Your task to perform on an android device: Open accessibility settings Image 0: 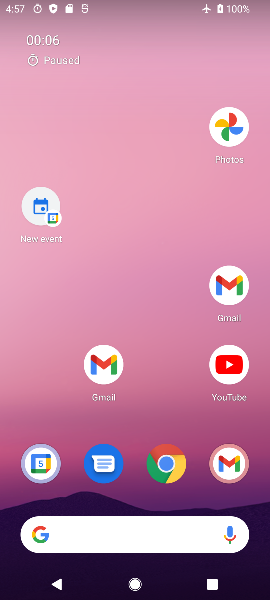
Step 0: drag from (151, 579) to (142, 192)
Your task to perform on an android device: Open accessibility settings Image 1: 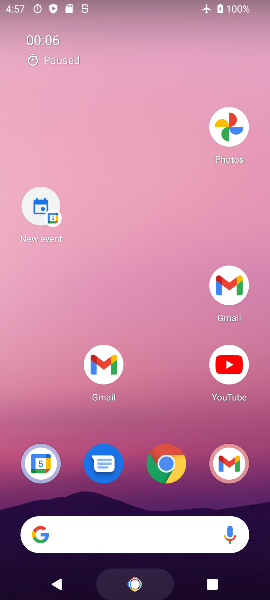
Step 1: drag from (173, 485) to (133, 208)
Your task to perform on an android device: Open accessibility settings Image 2: 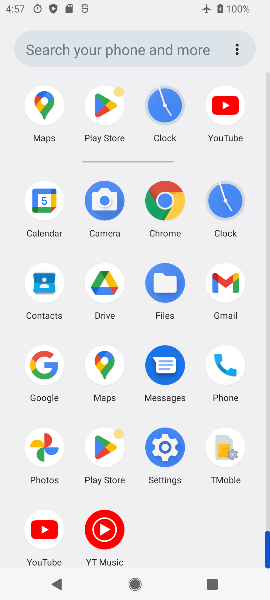
Step 2: click (164, 445)
Your task to perform on an android device: Open accessibility settings Image 3: 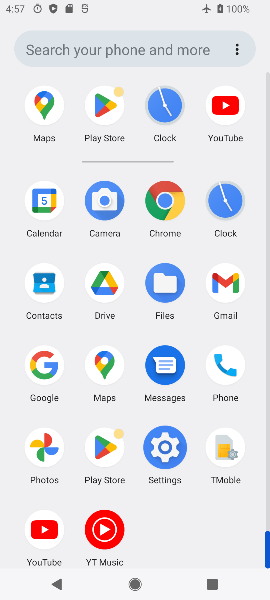
Step 3: click (164, 445)
Your task to perform on an android device: Open accessibility settings Image 4: 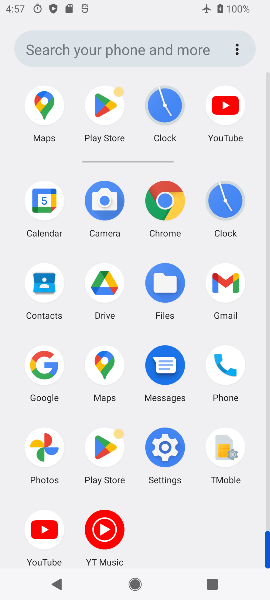
Step 4: click (164, 452)
Your task to perform on an android device: Open accessibility settings Image 5: 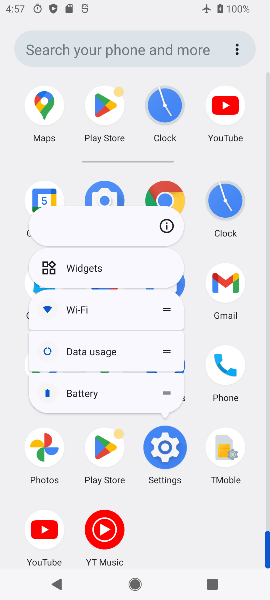
Step 5: click (165, 453)
Your task to perform on an android device: Open accessibility settings Image 6: 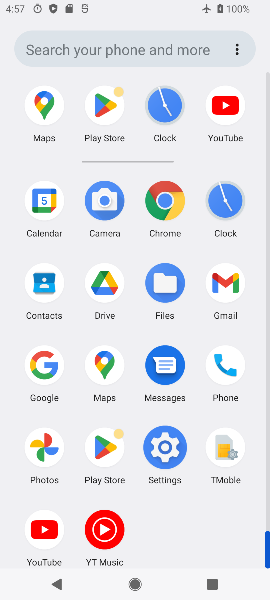
Step 6: click (165, 453)
Your task to perform on an android device: Open accessibility settings Image 7: 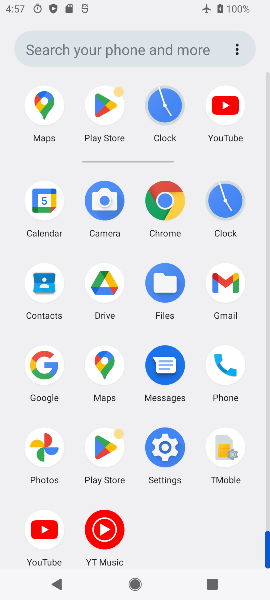
Step 7: click (167, 451)
Your task to perform on an android device: Open accessibility settings Image 8: 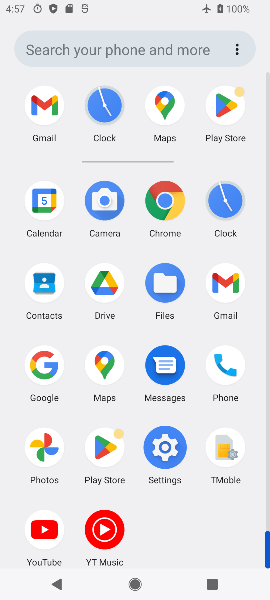
Step 8: click (169, 444)
Your task to perform on an android device: Open accessibility settings Image 9: 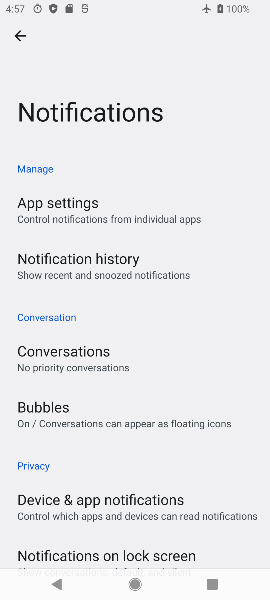
Step 9: click (25, 31)
Your task to perform on an android device: Open accessibility settings Image 10: 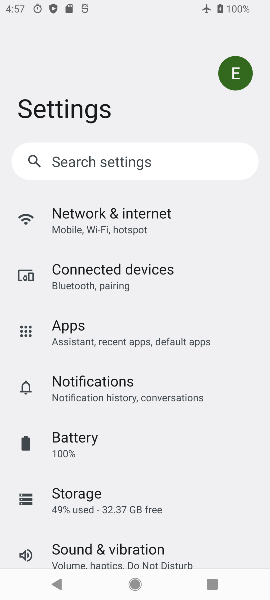
Step 10: drag from (151, 450) to (133, 188)
Your task to perform on an android device: Open accessibility settings Image 11: 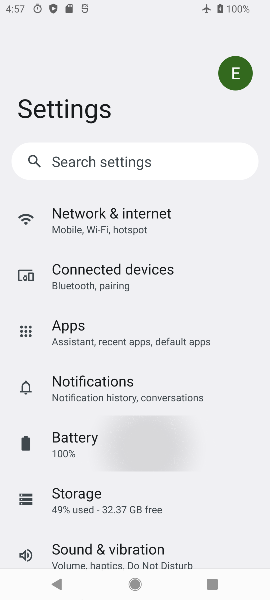
Step 11: drag from (134, 423) to (134, 208)
Your task to perform on an android device: Open accessibility settings Image 12: 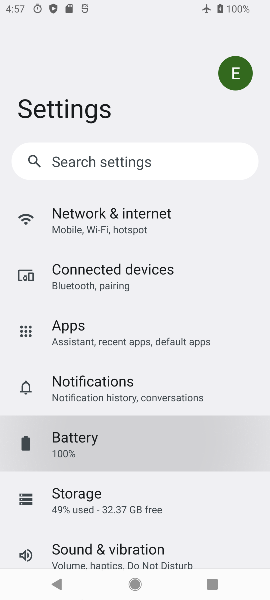
Step 12: drag from (138, 449) to (138, 273)
Your task to perform on an android device: Open accessibility settings Image 13: 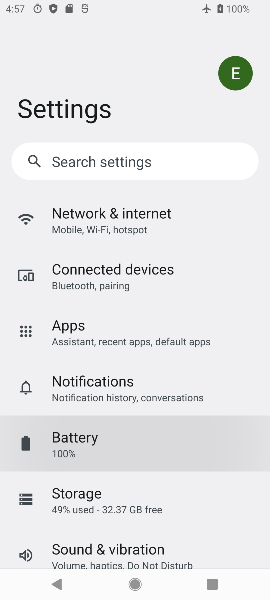
Step 13: drag from (136, 475) to (165, 199)
Your task to perform on an android device: Open accessibility settings Image 14: 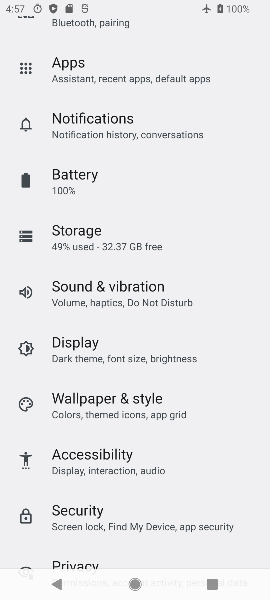
Step 14: drag from (157, 414) to (157, 204)
Your task to perform on an android device: Open accessibility settings Image 15: 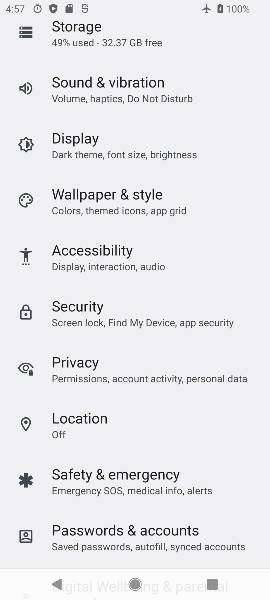
Step 15: drag from (117, 442) to (117, 183)
Your task to perform on an android device: Open accessibility settings Image 16: 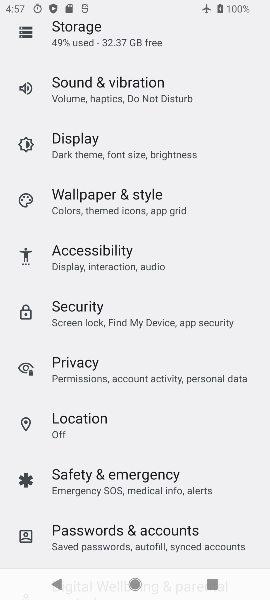
Step 16: click (73, 257)
Your task to perform on an android device: Open accessibility settings Image 17: 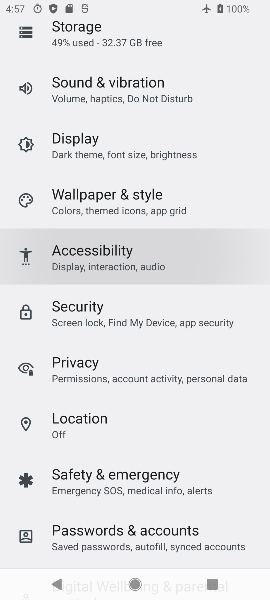
Step 17: click (73, 257)
Your task to perform on an android device: Open accessibility settings Image 18: 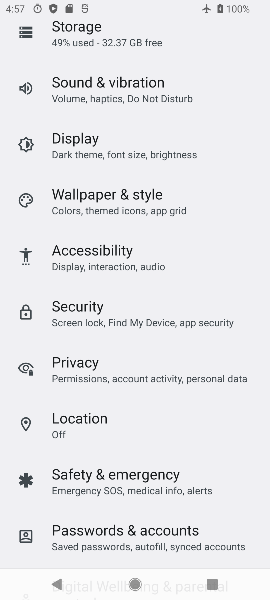
Step 18: click (73, 257)
Your task to perform on an android device: Open accessibility settings Image 19: 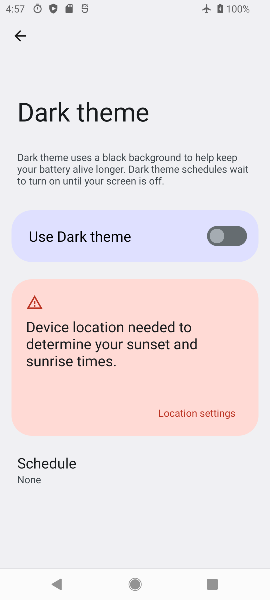
Step 19: task complete